Your task to perform on an android device: Open the web browser Image 0: 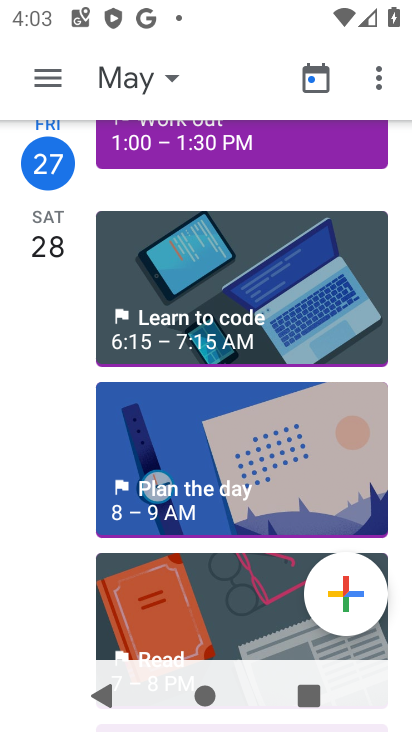
Step 0: press home button
Your task to perform on an android device: Open the web browser Image 1: 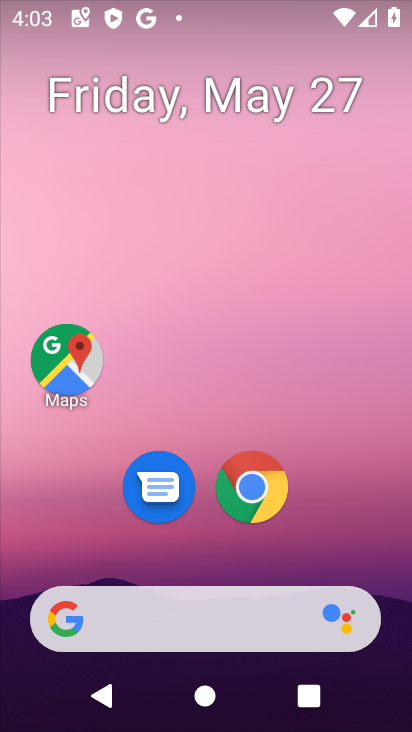
Step 1: click (259, 488)
Your task to perform on an android device: Open the web browser Image 2: 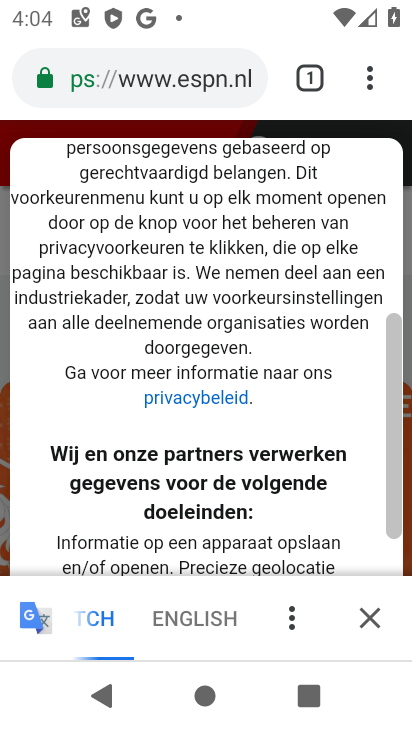
Step 2: task complete